Your task to perform on an android device: Go to privacy settings Image 0: 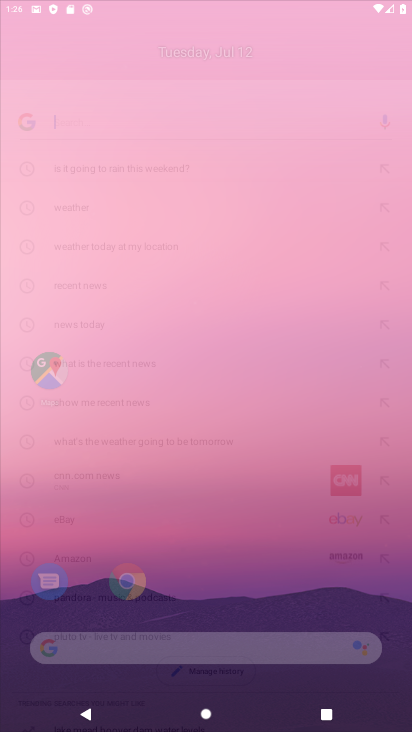
Step 0: click (217, 191)
Your task to perform on an android device: Go to privacy settings Image 1: 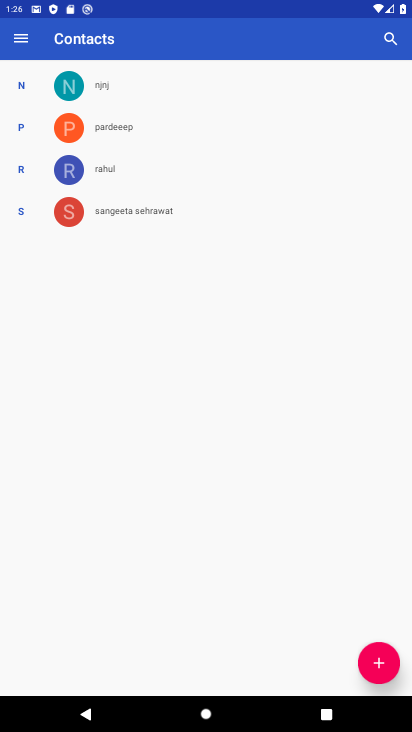
Step 1: press home button
Your task to perform on an android device: Go to privacy settings Image 2: 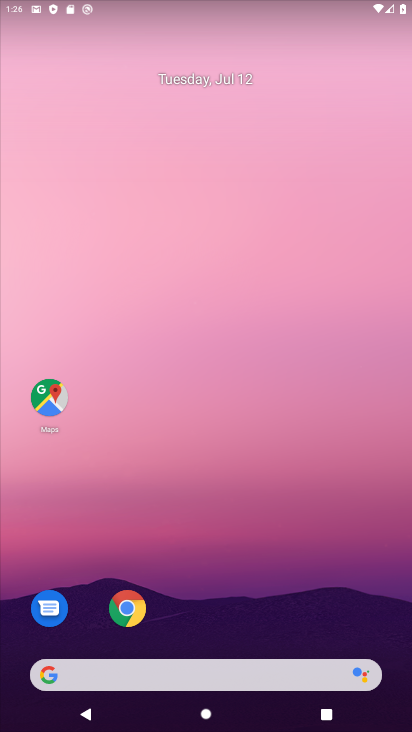
Step 2: drag from (328, 619) to (285, 264)
Your task to perform on an android device: Go to privacy settings Image 3: 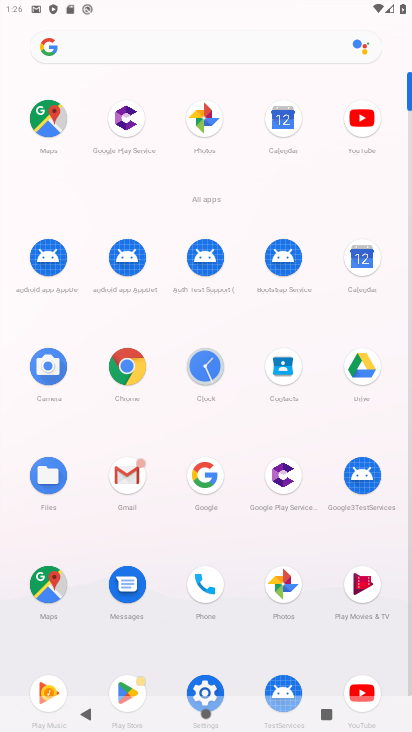
Step 3: click (198, 683)
Your task to perform on an android device: Go to privacy settings Image 4: 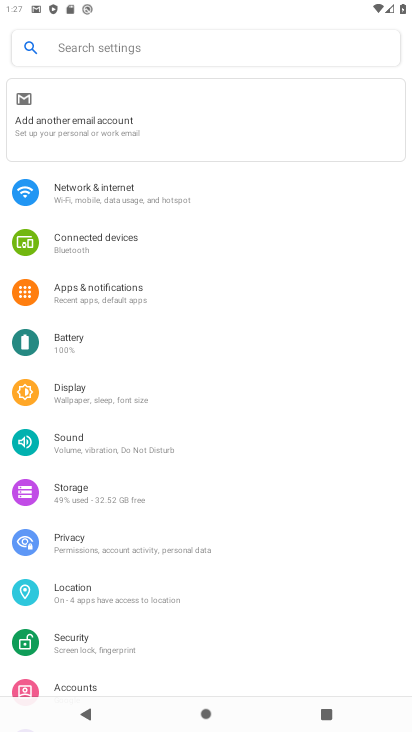
Step 4: click (142, 546)
Your task to perform on an android device: Go to privacy settings Image 5: 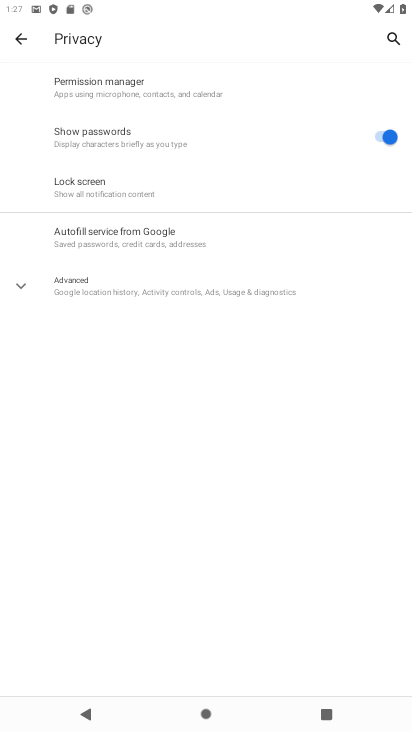
Step 5: task complete